Your task to perform on an android device: toggle data saver in the chrome app Image 0: 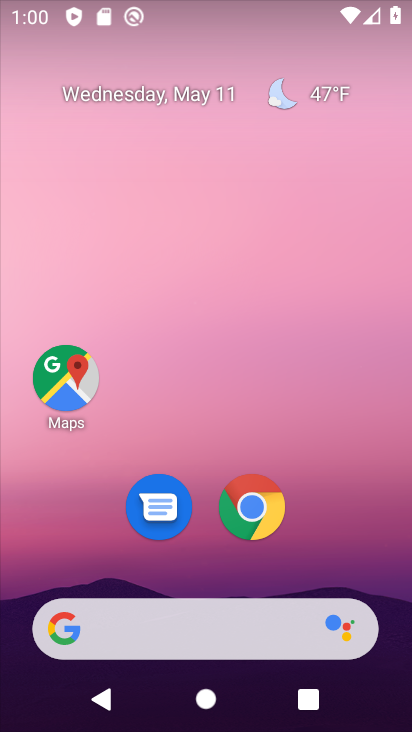
Step 0: drag from (324, 508) to (177, 103)
Your task to perform on an android device: toggle data saver in the chrome app Image 1: 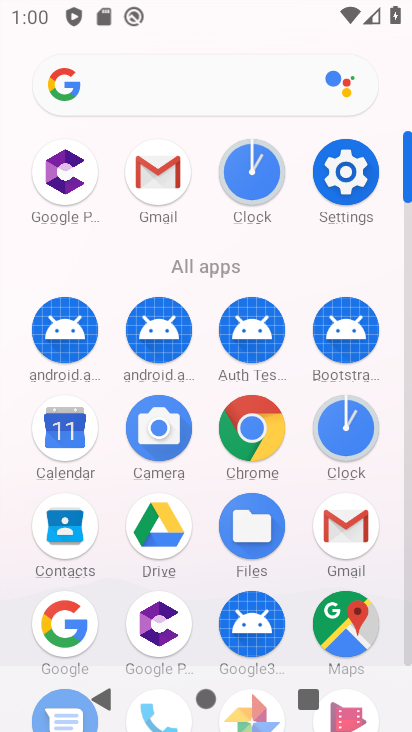
Step 1: click (253, 424)
Your task to perform on an android device: toggle data saver in the chrome app Image 2: 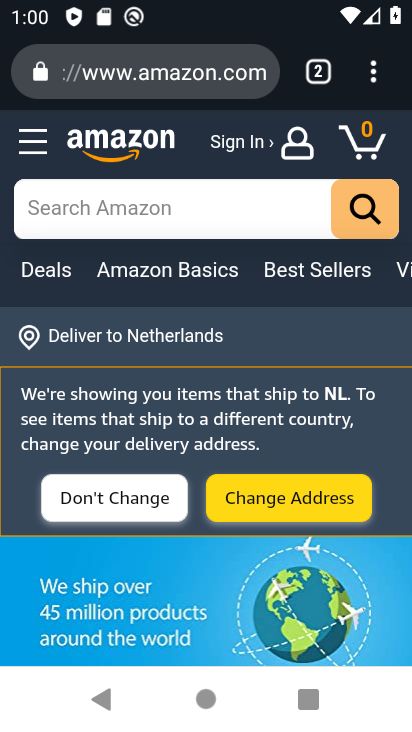
Step 2: click (368, 80)
Your task to perform on an android device: toggle data saver in the chrome app Image 3: 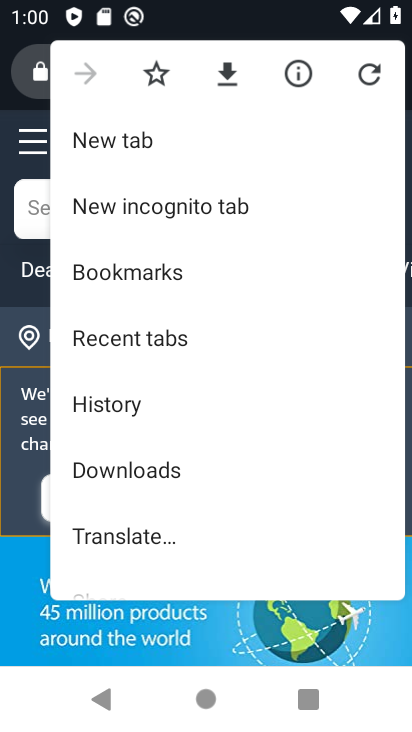
Step 3: drag from (213, 487) to (170, 198)
Your task to perform on an android device: toggle data saver in the chrome app Image 4: 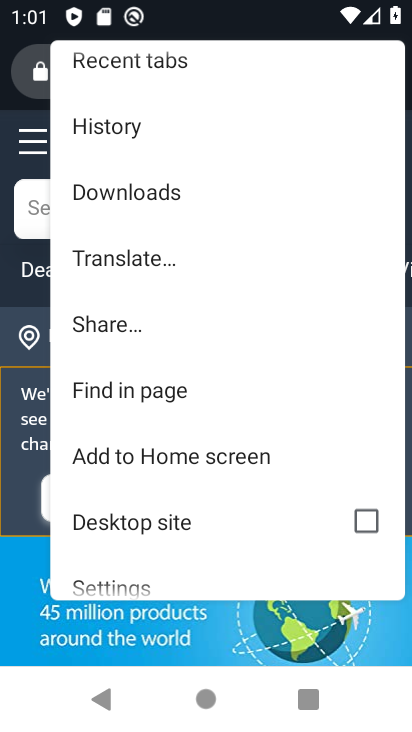
Step 4: drag from (199, 520) to (178, 284)
Your task to perform on an android device: toggle data saver in the chrome app Image 5: 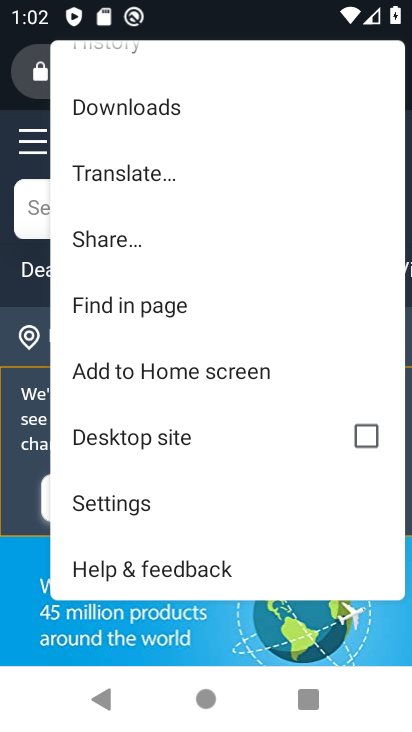
Step 5: click (129, 501)
Your task to perform on an android device: toggle data saver in the chrome app Image 6: 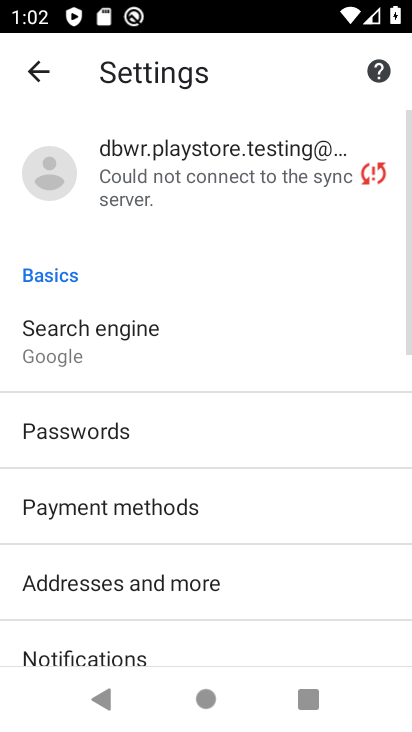
Step 6: drag from (219, 487) to (126, 176)
Your task to perform on an android device: toggle data saver in the chrome app Image 7: 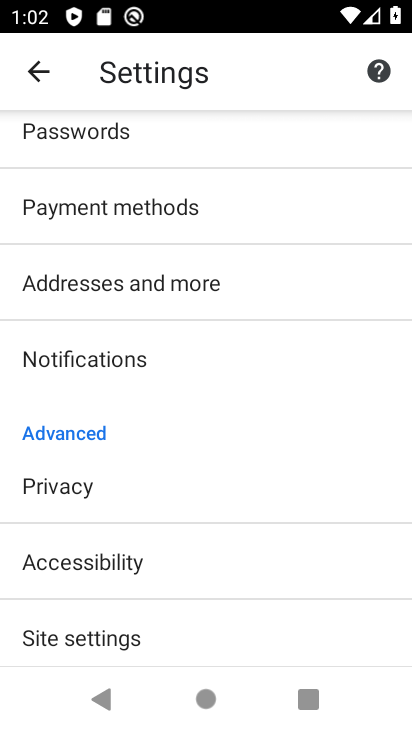
Step 7: drag from (177, 513) to (147, 296)
Your task to perform on an android device: toggle data saver in the chrome app Image 8: 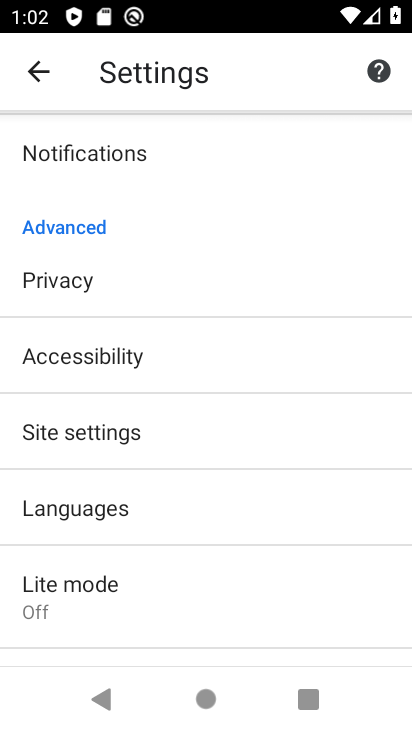
Step 8: drag from (183, 538) to (154, 372)
Your task to perform on an android device: toggle data saver in the chrome app Image 9: 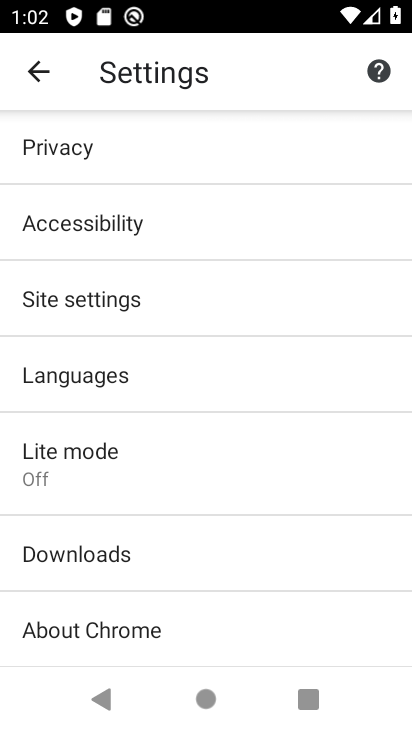
Step 9: click (106, 455)
Your task to perform on an android device: toggle data saver in the chrome app Image 10: 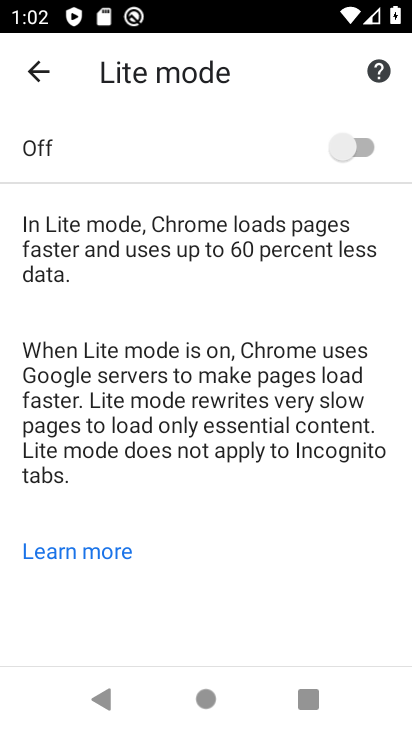
Step 10: click (344, 149)
Your task to perform on an android device: toggle data saver in the chrome app Image 11: 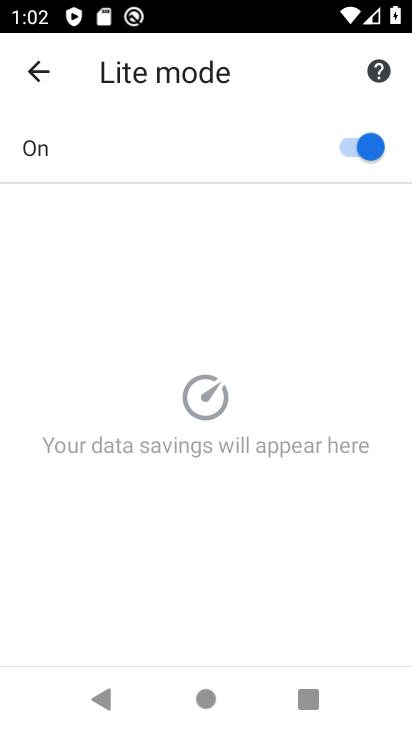
Step 11: task complete